Your task to perform on an android device: Set the phone to "Do not disturb". Image 0: 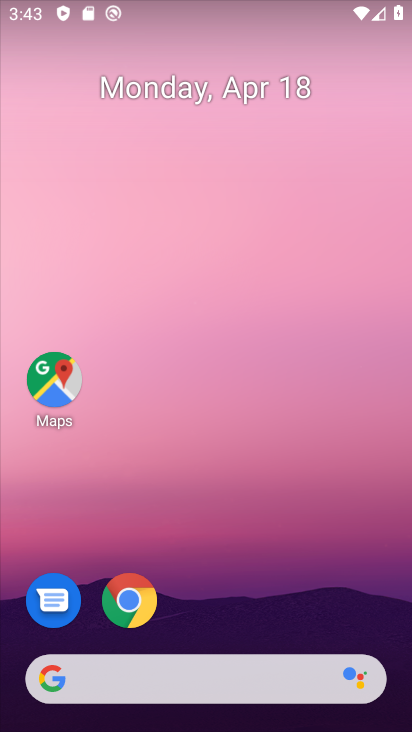
Step 0: drag from (258, 714) to (238, 83)
Your task to perform on an android device: Set the phone to "Do not disturb". Image 1: 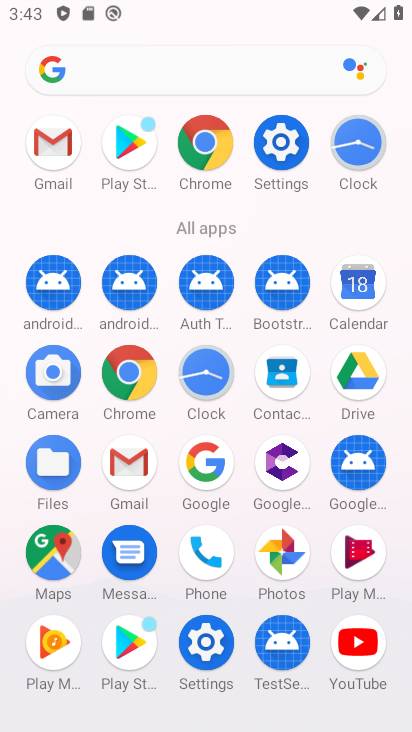
Step 1: click (274, 141)
Your task to perform on an android device: Set the phone to "Do not disturb". Image 2: 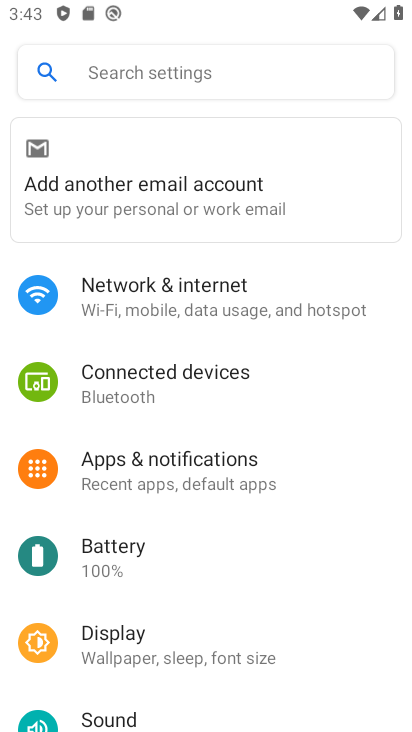
Step 2: click (259, 92)
Your task to perform on an android device: Set the phone to "Do not disturb". Image 3: 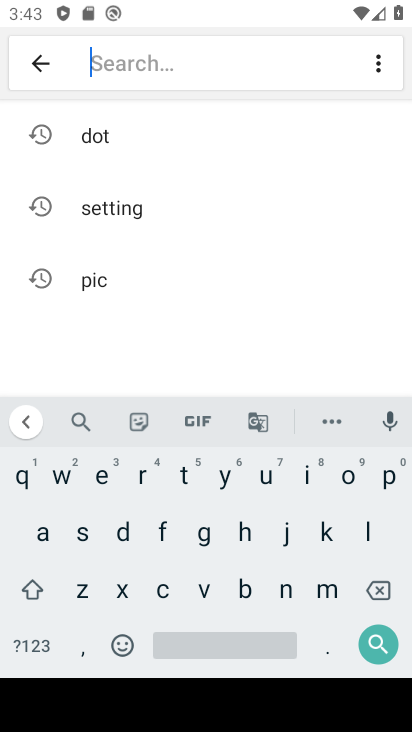
Step 3: click (121, 533)
Your task to perform on an android device: Set the phone to "Do not disturb". Image 4: 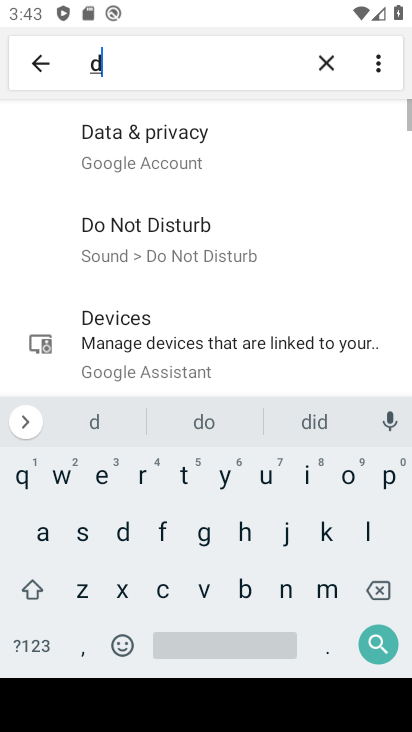
Step 4: click (281, 589)
Your task to perform on an android device: Set the phone to "Do not disturb". Image 5: 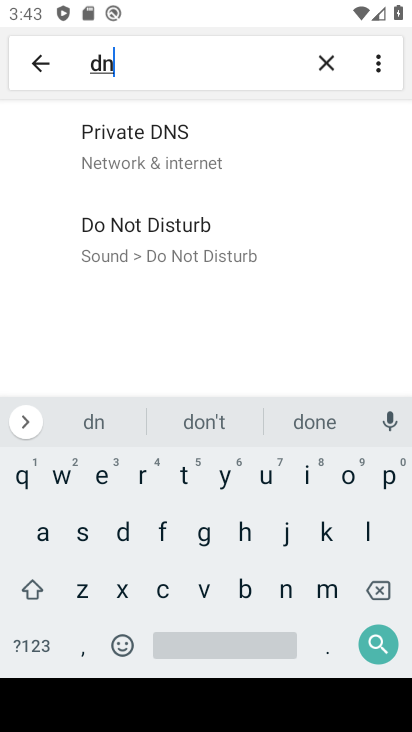
Step 5: click (114, 532)
Your task to perform on an android device: Set the phone to "Do not disturb". Image 6: 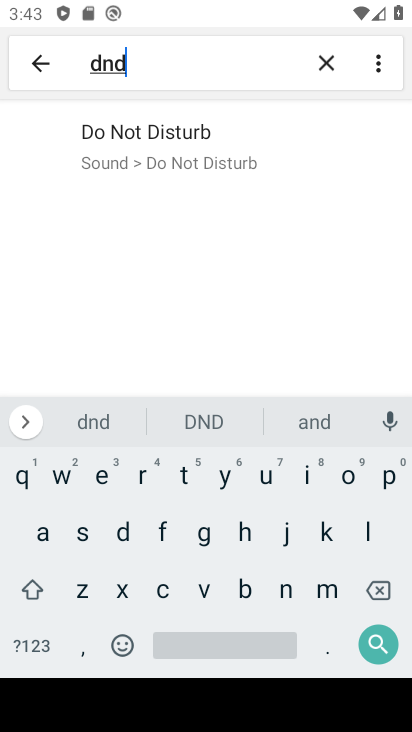
Step 6: click (160, 134)
Your task to perform on an android device: Set the phone to "Do not disturb". Image 7: 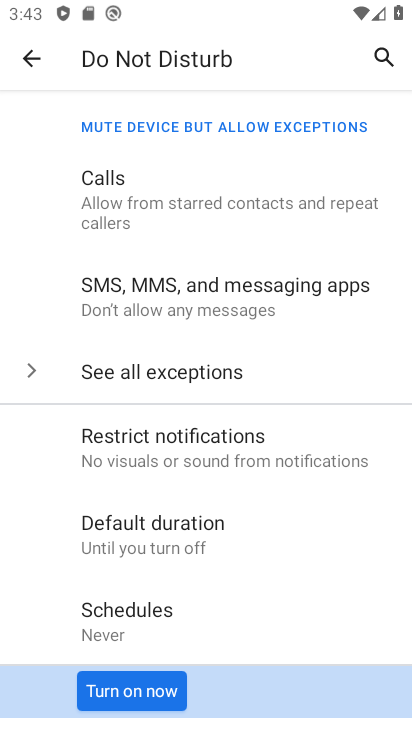
Step 7: click (110, 690)
Your task to perform on an android device: Set the phone to "Do not disturb". Image 8: 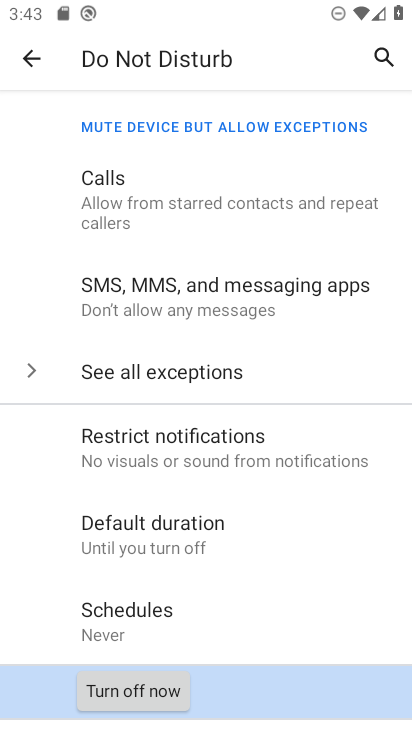
Step 8: task complete